Your task to perform on an android device: Check the weather Image 0: 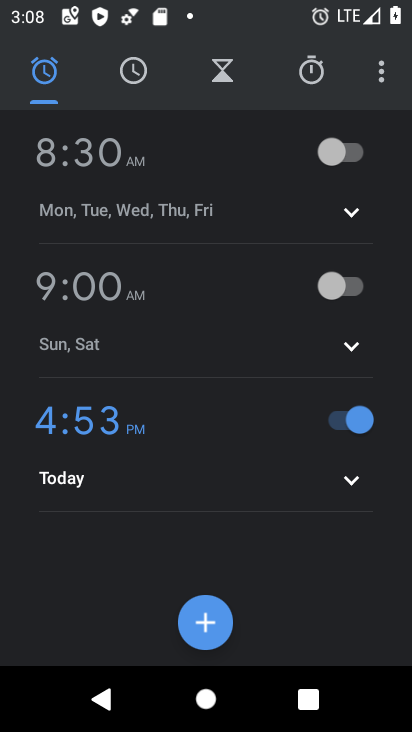
Step 0: press back button
Your task to perform on an android device: Check the weather Image 1: 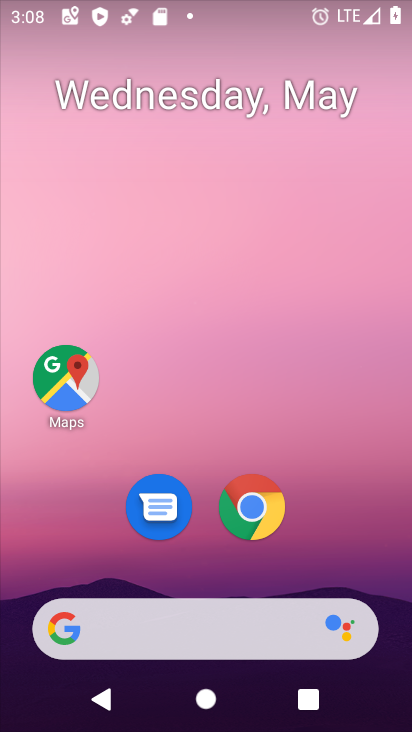
Step 1: drag from (338, 561) to (255, 139)
Your task to perform on an android device: Check the weather Image 2: 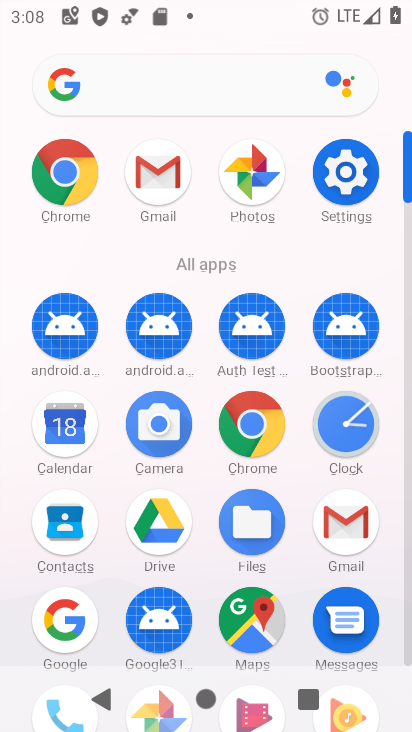
Step 2: drag from (208, 473) to (209, 347)
Your task to perform on an android device: Check the weather Image 3: 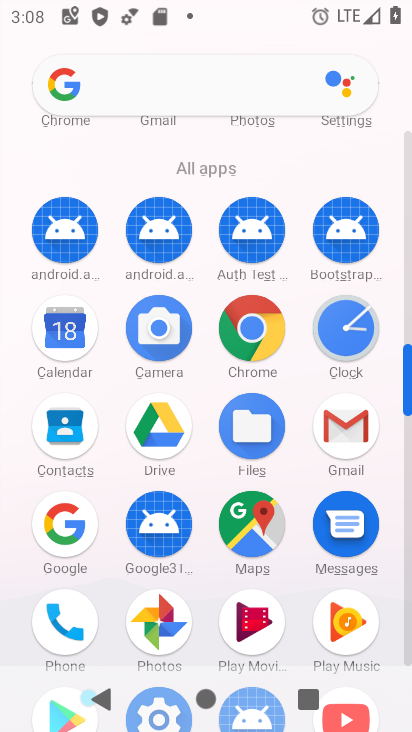
Step 3: click (60, 524)
Your task to perform on an android device: Check the weather Image 4: 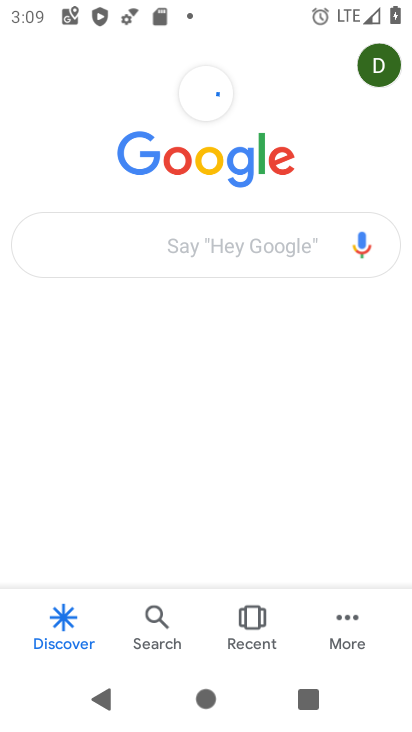
Step 4: click (157, 244)
Your task to perform on an android device: Check the weather Image 5: 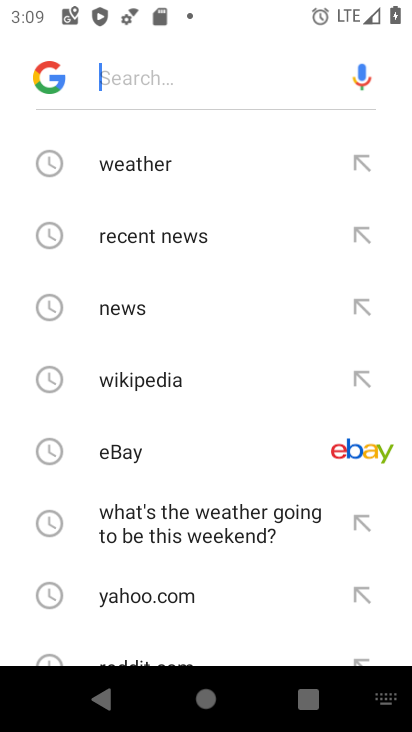
Step 5: type "weather"
Your task to perform on an android device: Check the weather Image 6: 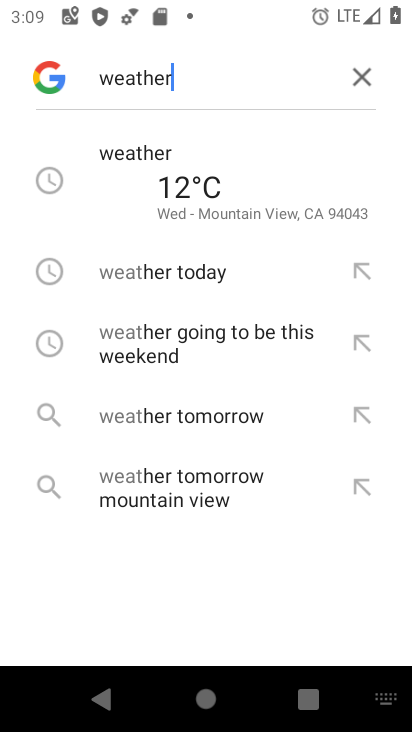
Step 6: type ""
Your task to perform on an android device: Check the weather Image 7: 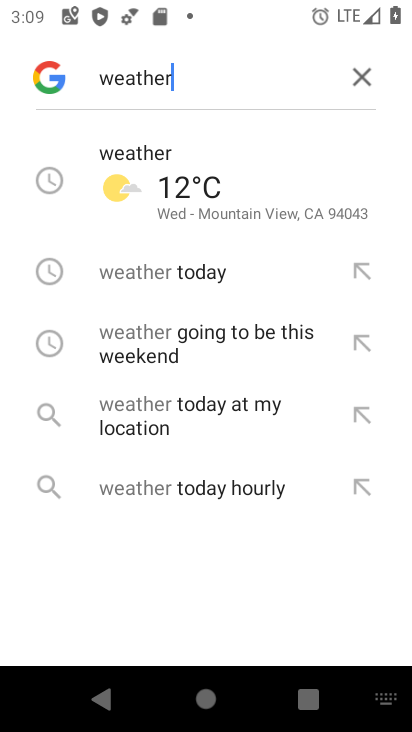
Step 7: click (131, 162)
Your task to perform on an android device: Check the weather Image 8: 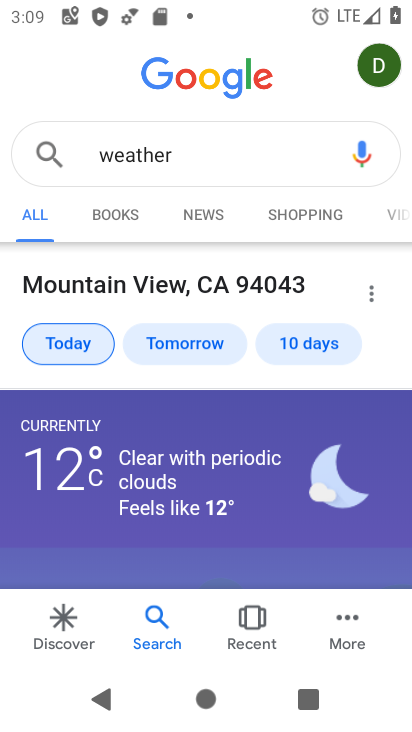
Step 8: task complete